Your task to perform on an android device: check storage Image 0: 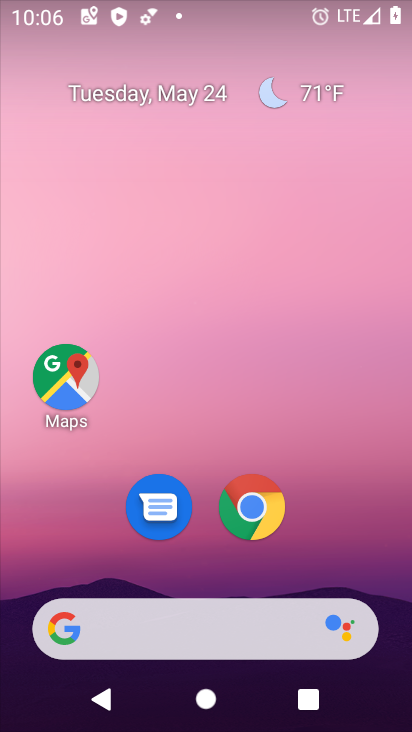
Step 0: drag from (221, 677) to (192, 171)
Your task to perform on an android device: check storage Image 1: 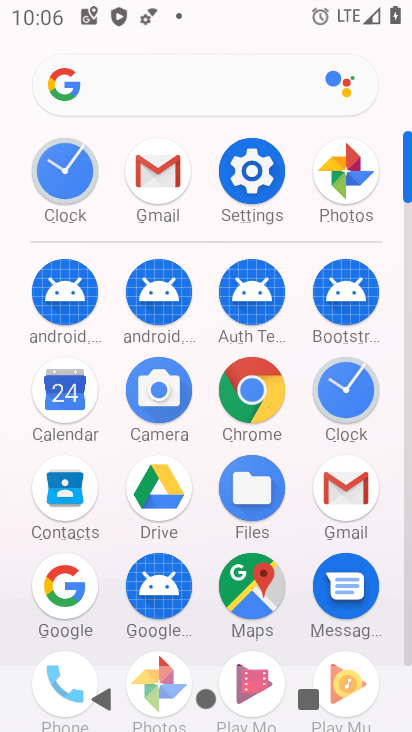
Step 1: click (251, 177)
Your task to perform on an android device: check storage Image 2: 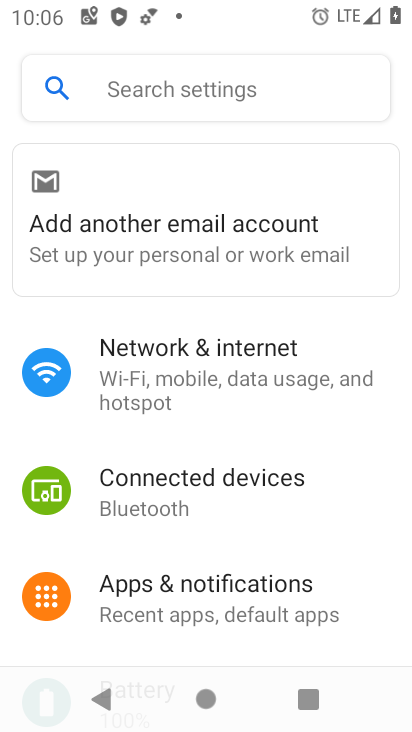
Step 2: drag from (193, 609) to (192, 269)
Your task to perform on an android device: check storage Image 3: 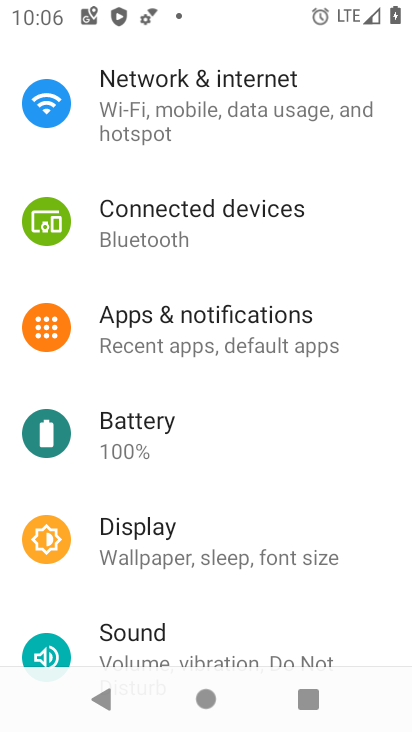
Step 3: drag from (178, 619) to (188, 201)
Your task to perform on an android device: check storage Image 4: 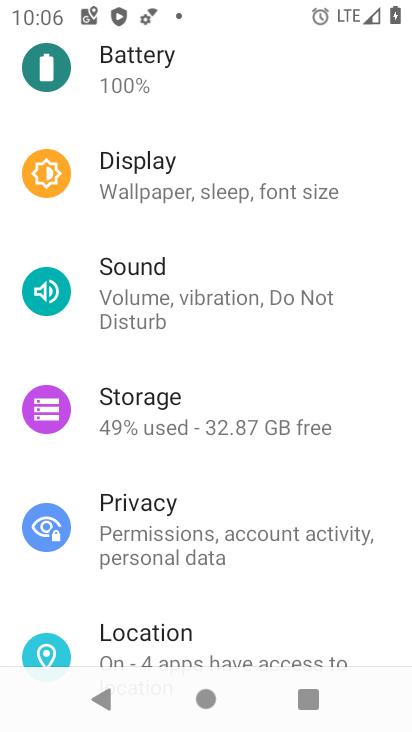
Step 4: click (164, 398)
Your task to perform on an android device: check storage Image 5: 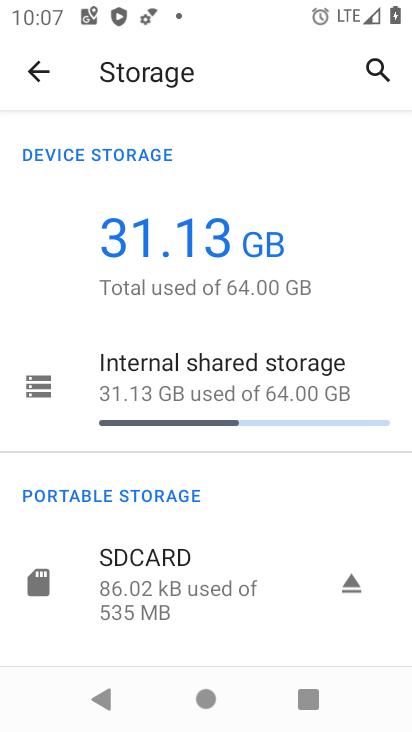
Step 5: task complete